Your task to perform on an android device: manage bookmarks in the chrome app Image 0: 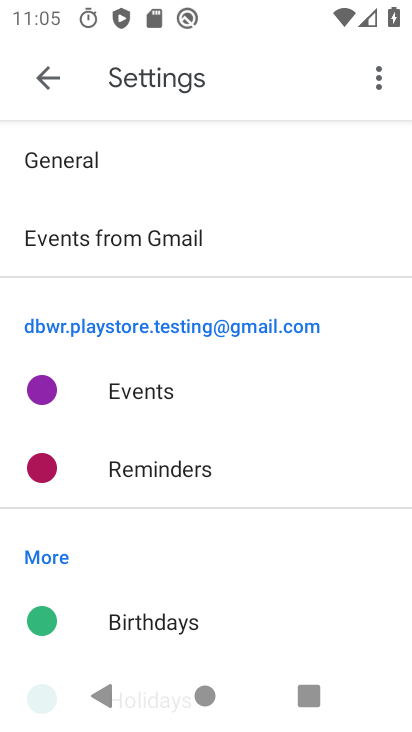
Step 0: press home button
Your task to perform on an android device: manage bookmarks in the chrome app Image 1: 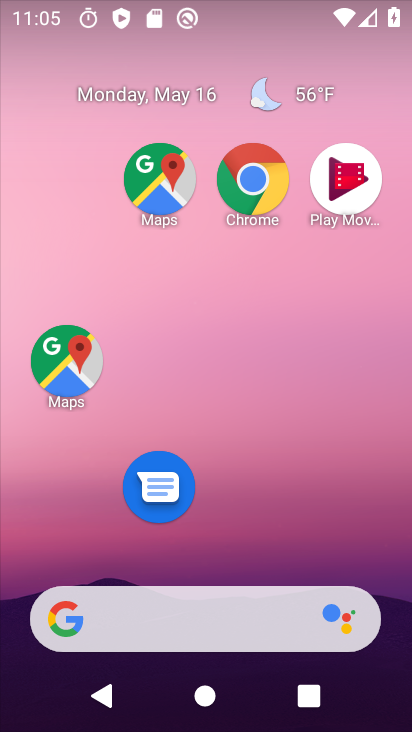
Step 1: click (139, 184)
Your task to perform on an android device: manage bookmarks in the chrome app Image 2: 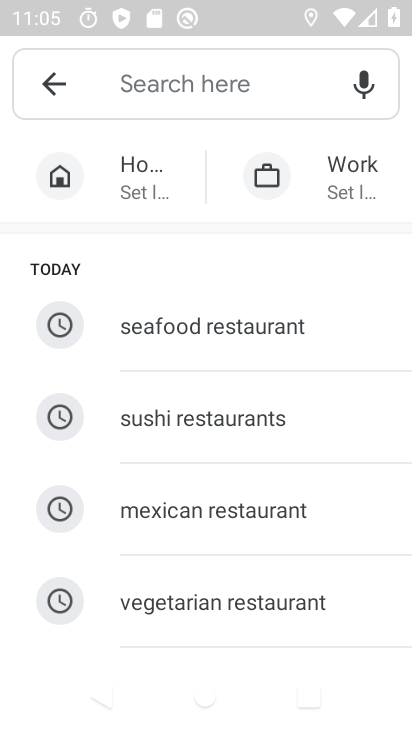
Step 2: task complete